Your task to perform on an android device: Show me the best rated 4K TV on Walmart. Image 0: 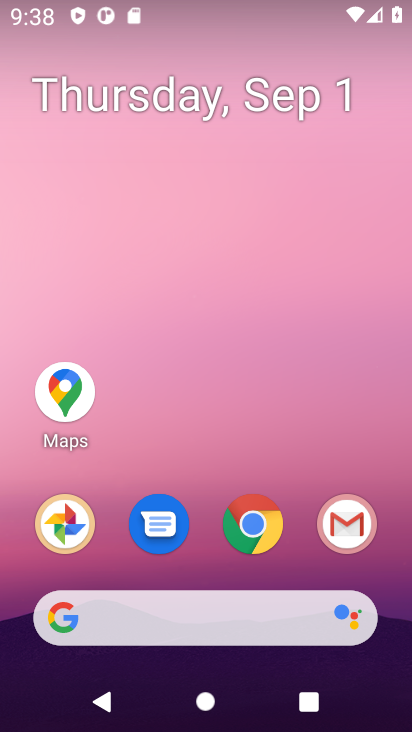
Step 0: drag from (379, 570) to (403, 122)
Your task to perform on an android device: Show me the best rated 4K TV on Walmart. Image 1: 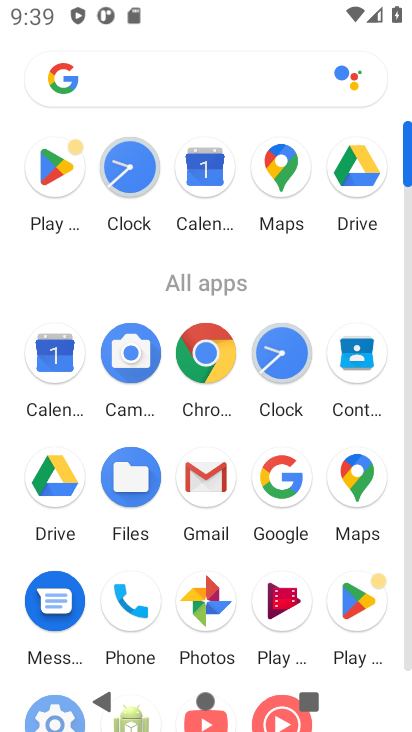
Step 1: click (208, 354)
Your task to perform on an android device: Show me the best rated 4K TV on Walmart. Image 2: 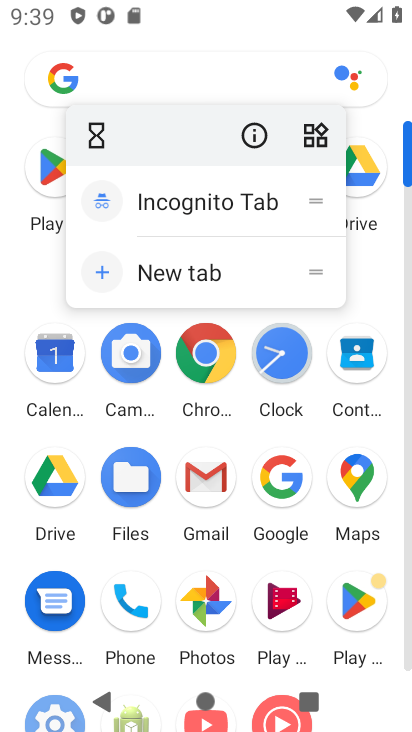
Step 2: click (208, 354)
Your task to perform on an android device: Show me the best rated 4K TV on Walmart. Image 3: 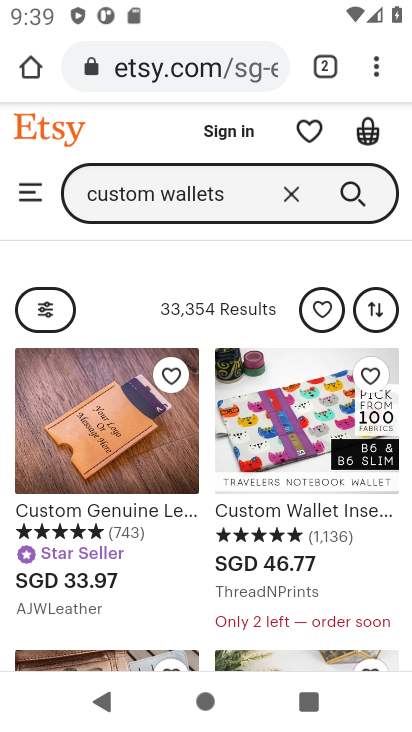
Step 3: click (153, 72)
Your task to perform on an android device: Show me the best rated 4K TV on Walmart. Image 4: 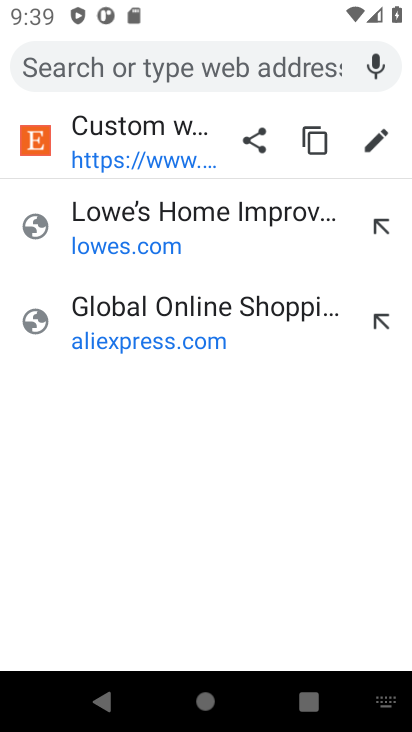
Step 4: press enter
Your task to perform on an android device: Show me the best rated 4K TV on Walmart. Image 5: 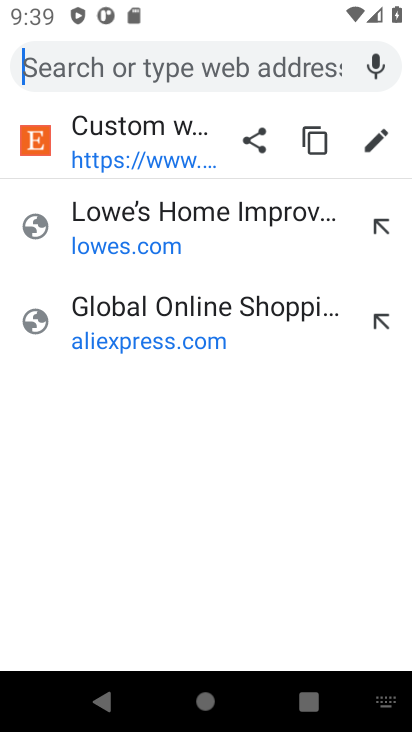
Step 5: type "walmart"
Your task to perform on an android device: Show me the best rated 4K TV on Walmart. Image 6: 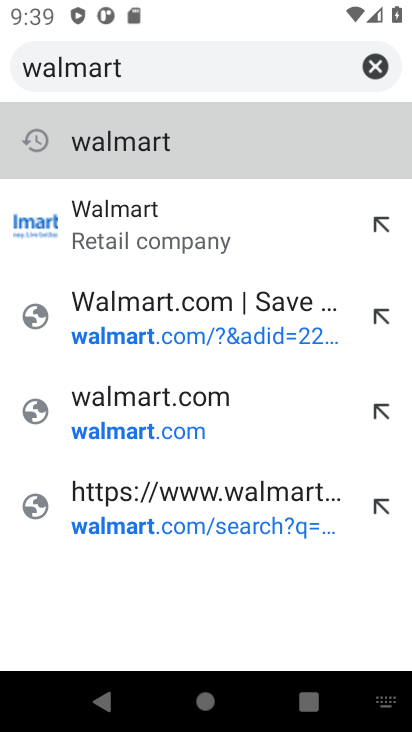
Step 6: click (155, 145)
Your task to perform on an android device: Show me the best rated 4K TV on Walmart. Image 7: 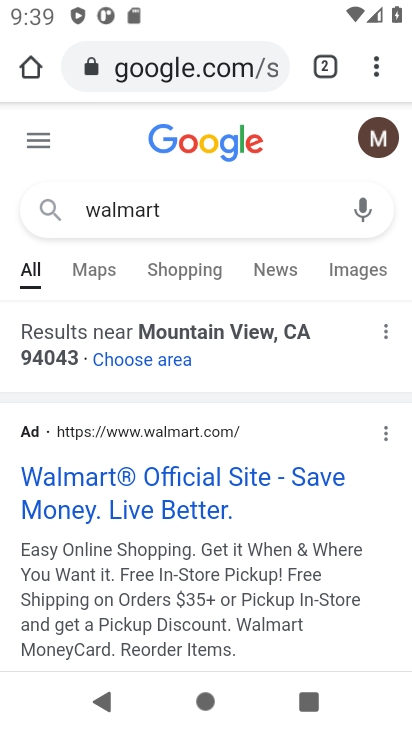
Step 7: click (208, 509)
Your task to perform on an android device: Show me the best rated 4K TV on Walmart. Image 8: 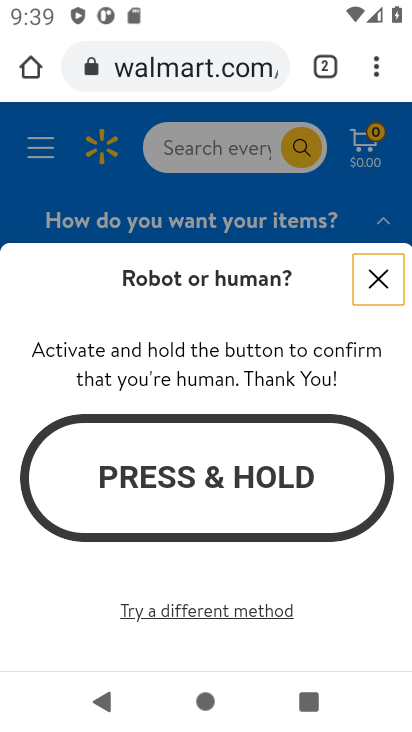
Step 8: click (167, 470)
Your task to perform on an android device: Show me the best rated 4K TV on Walmart. Image 9: 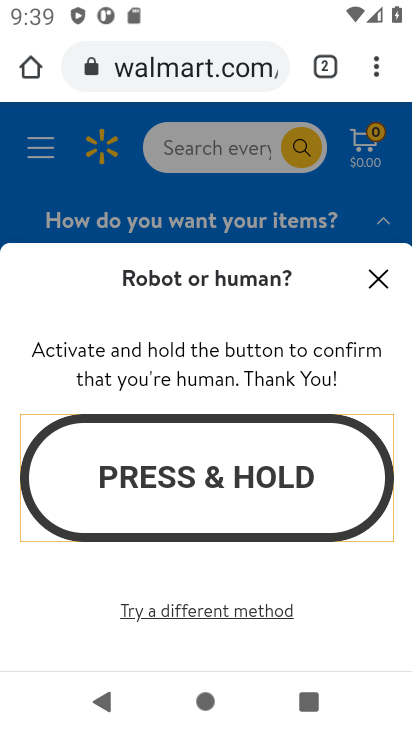
Step 9: click (167, 470)
Your task to perform on an android device: Show me the best rated 4K TV on Walmart. Image 10: 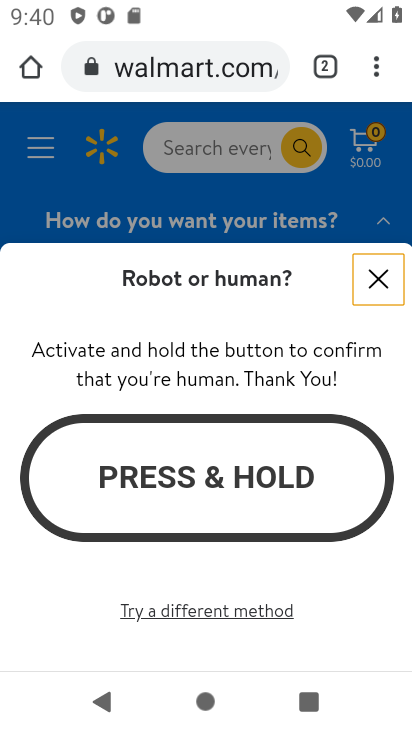
Step 10: click (378, 279)
Your task to perform on an android device: Show me the best rated 4K TV on Walmart. Image 11: 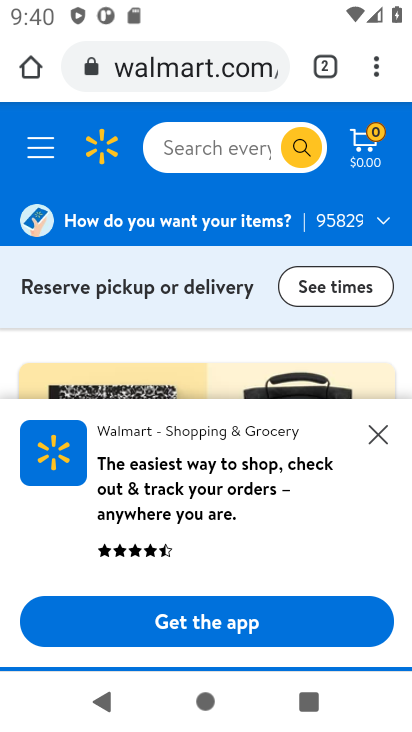
Step 11: click (380, 430)
Your task to perform on an android device: Show me the best rated 4K TV on Walmart. Image 12: 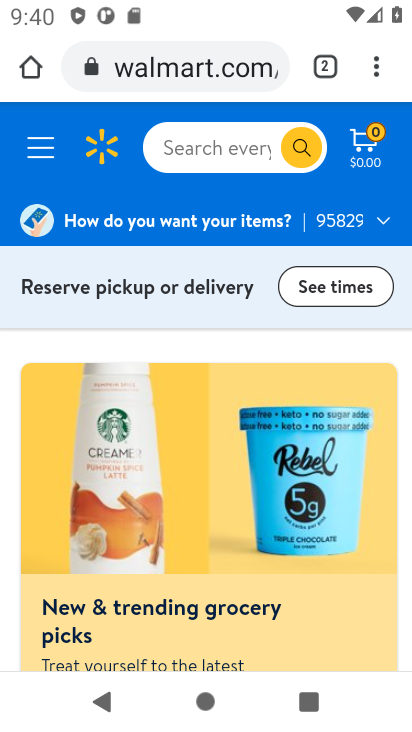
Step 12: click (187, 133)
Your task to perform on an android device: Show me the best rated 4K TV on Walmart. Image 13: 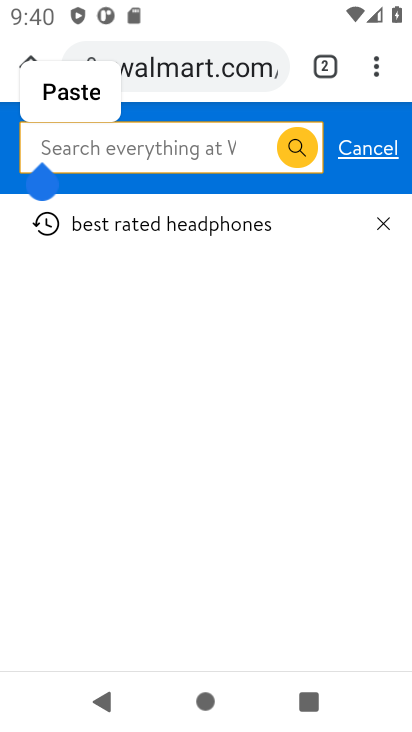
Step 13: type "best rated 4K TV"
Your task to perform on an android device: Show me the best rated 4K TV on Walmart. Image 14: 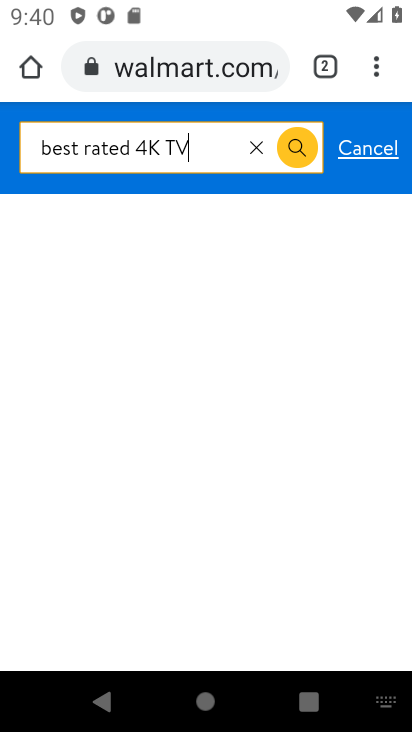
Step 14: click (292, 143)
Your task to perform on an android device: Show me the best rated 4K TV on Walmart. Image 15: 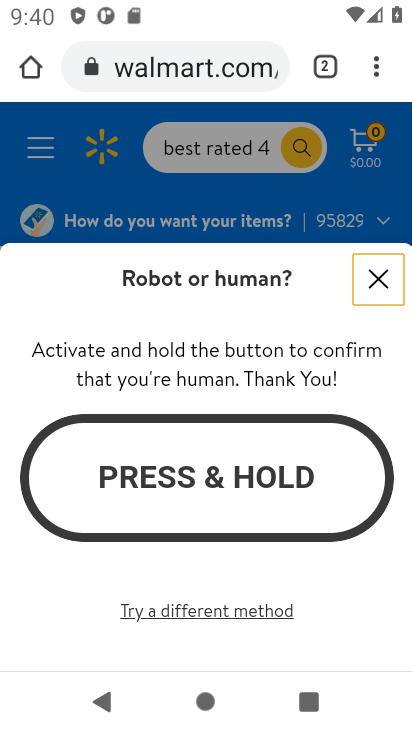
Step 15: click (380, 274)
Your task to perform on an android device: Show me the best rated 4K TV on Walmart. Image 16: 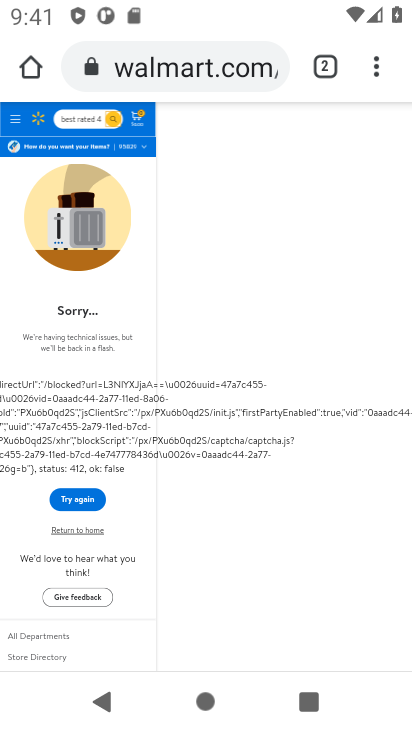
Step 16: task complete